Your task to perform on an android device: Open maps Image 0: 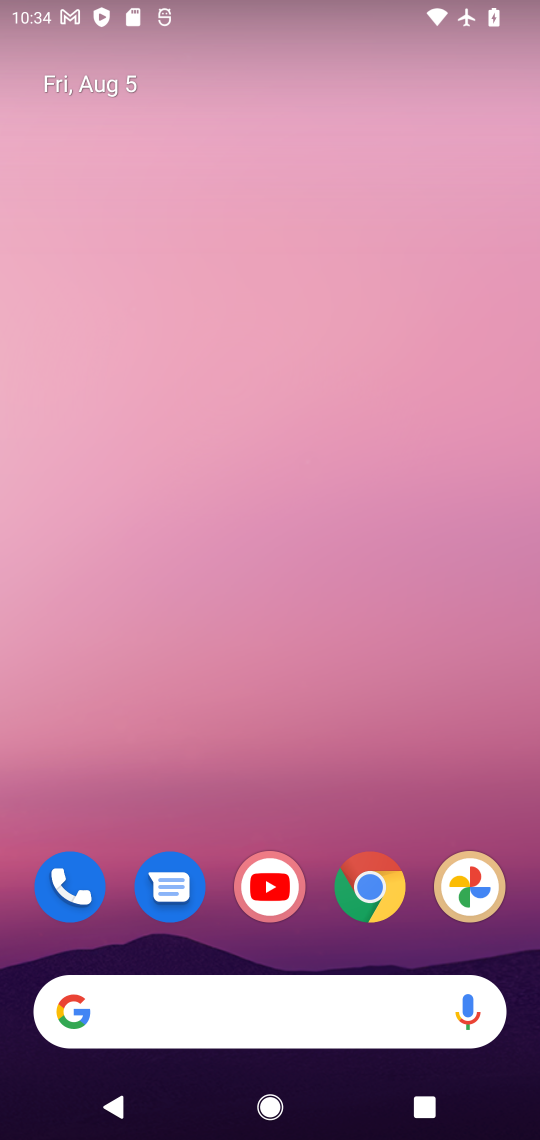
Step 0: press home button
Your task to perform on an android device: Open maps Image 1: 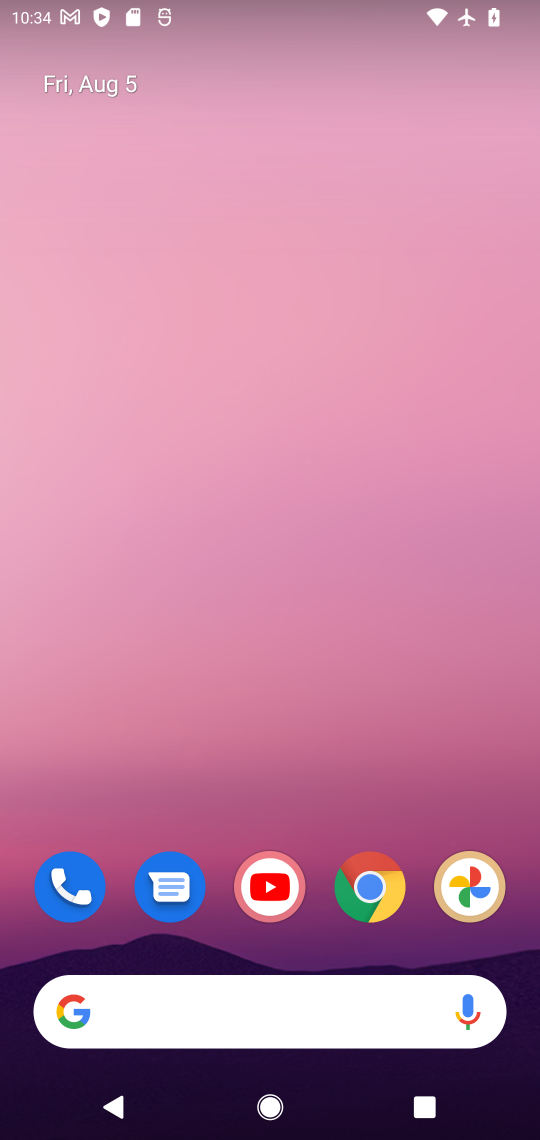
Step 1: drag from (179, 929) to (324, 210)
Your task to perform on an android device: Open maps Image 2: 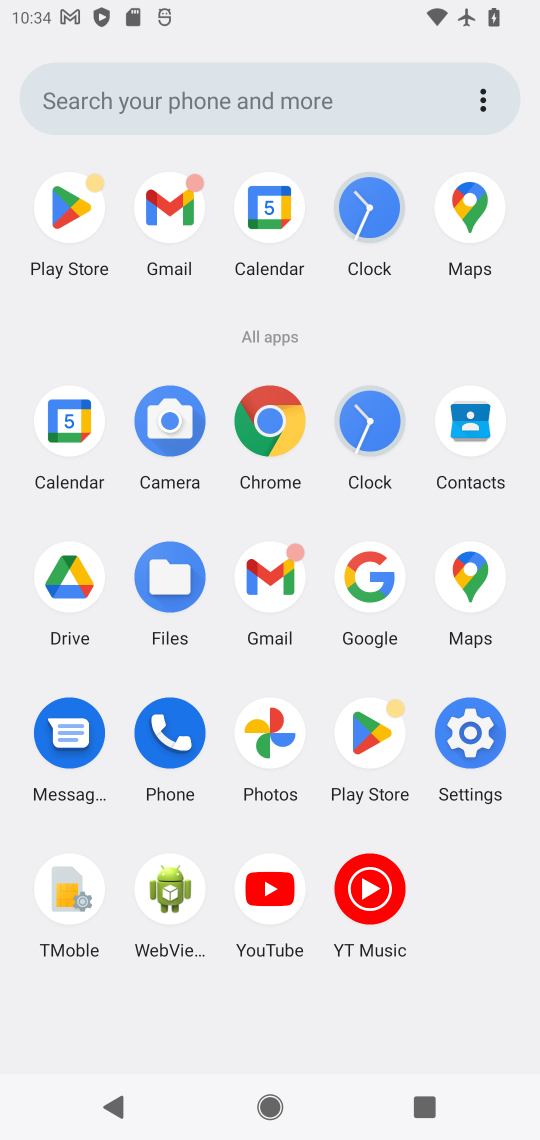
Step 2: click (474, 203)
Your task to perform on an android device: Open maps Image 3: 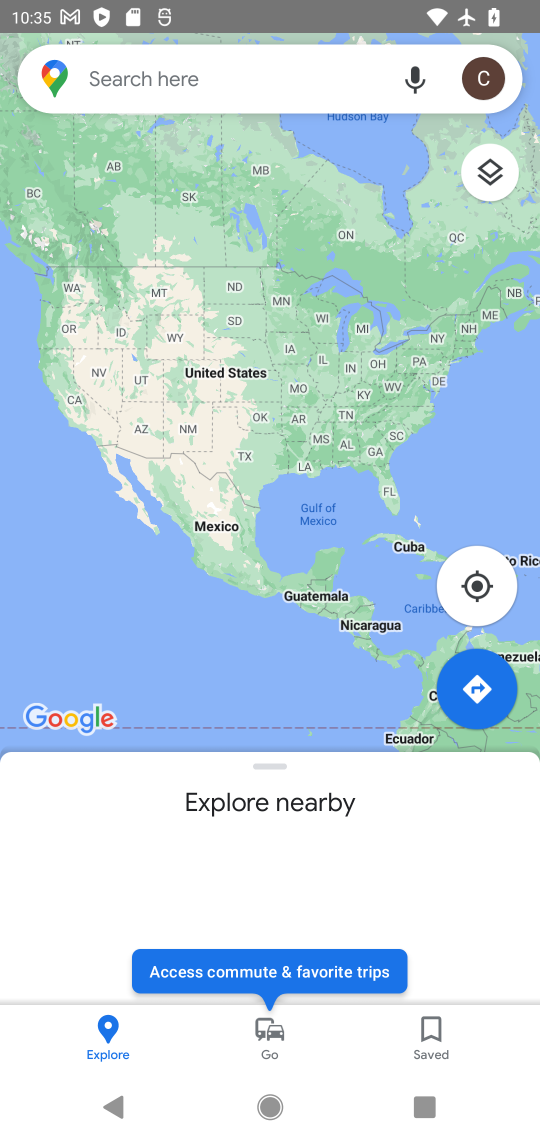
Step 3: task complete